Your task to perform on an android device: all mails in gmail Image 0: 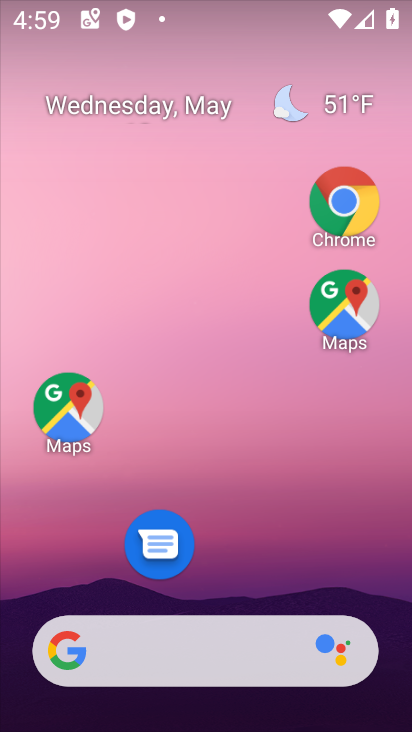
Step 0: drag from (250, 576) to (325, 195)
Your task to perform on an android device: all mails in gmail Image 1: 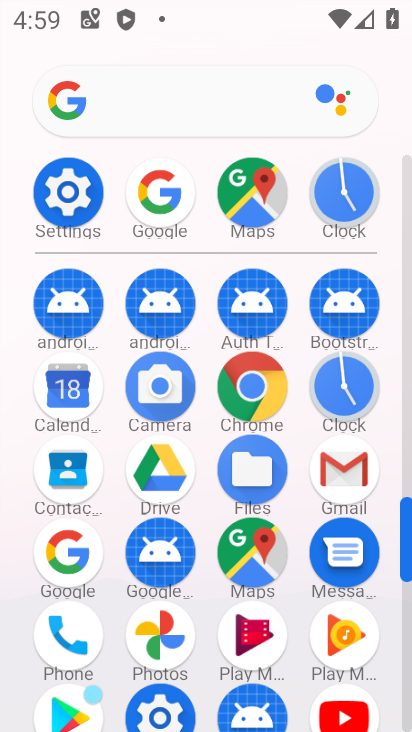
Step 1: click (344, 486)
Your task to perform on an android device: all mails in gmail Image 2: 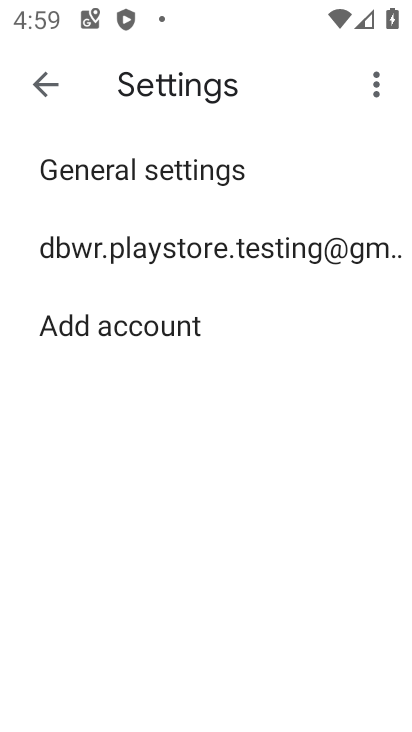
Step 2: click (34, 86)
Your task to perform on an android device: all mails in gmail Image 3: 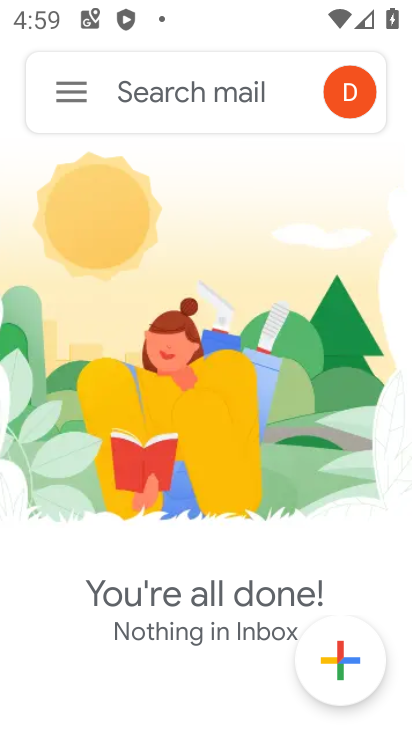
Step 3: click (197, 103)
Your task to perform on an android device: all mails in gmail Image 4: 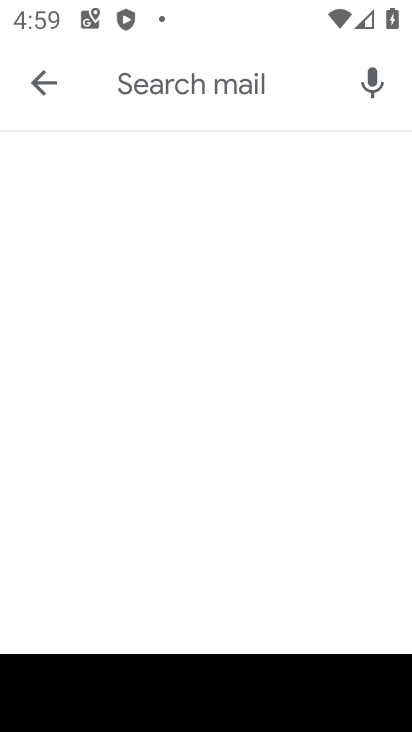
Step 4: click (49, 83)
Your task to perform on an android device: all mails in gmail Image 5: 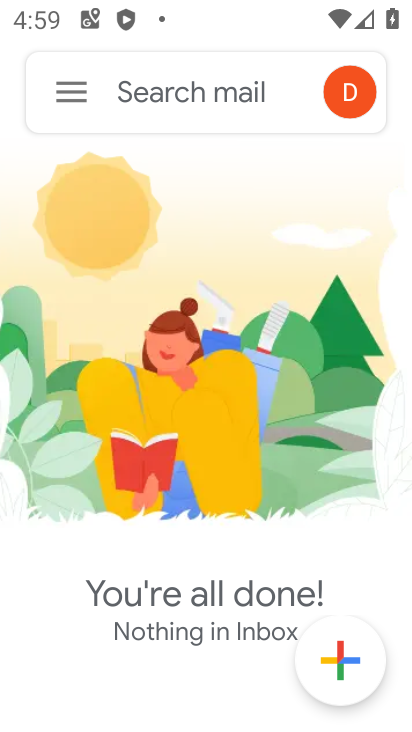
Step 5: click (60, 92)
Your task to perform on an android device: all mails in gmail Image 6: 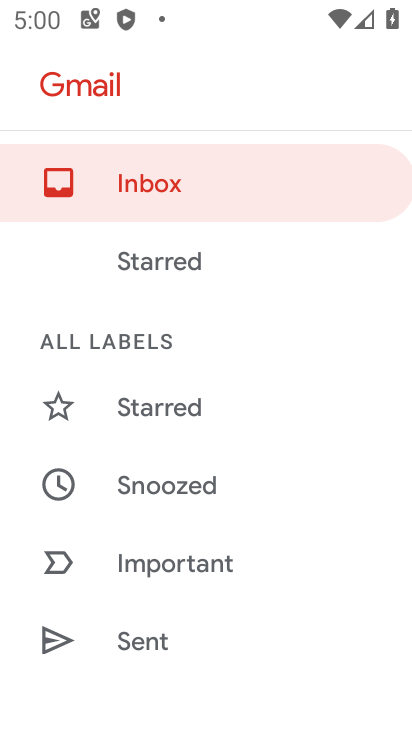
Step 6: drag from (202, 577) to (315, 253)
Your task to perform on an android device: all mails in gmail Image 7: 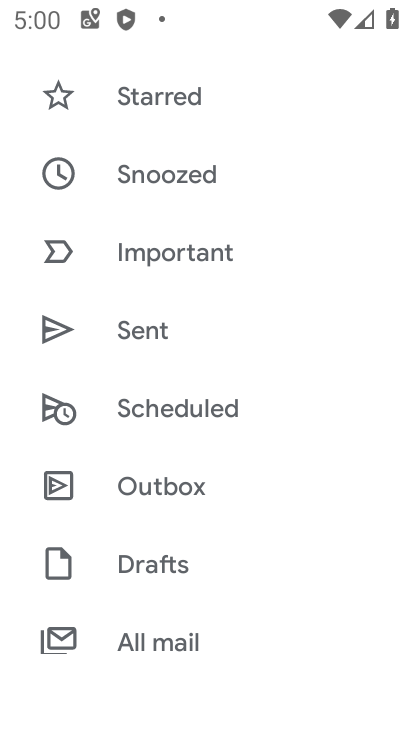
Step 7: click (158, 659)
Your task to perform on an android device: all mails in gmail Image 8: 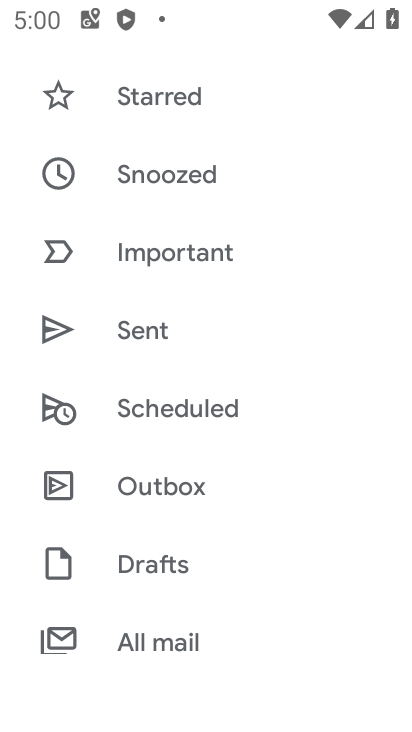
Step 8: click (171, 637)
Your task to perform on an android device: all mails in gmail Image 9: 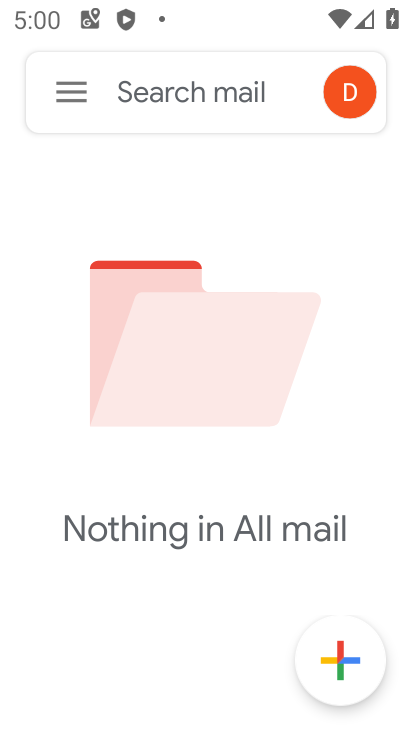
Step 9: task complete